Your task to perform on an android device: Search for pizza restaurants on Maps Image 0: 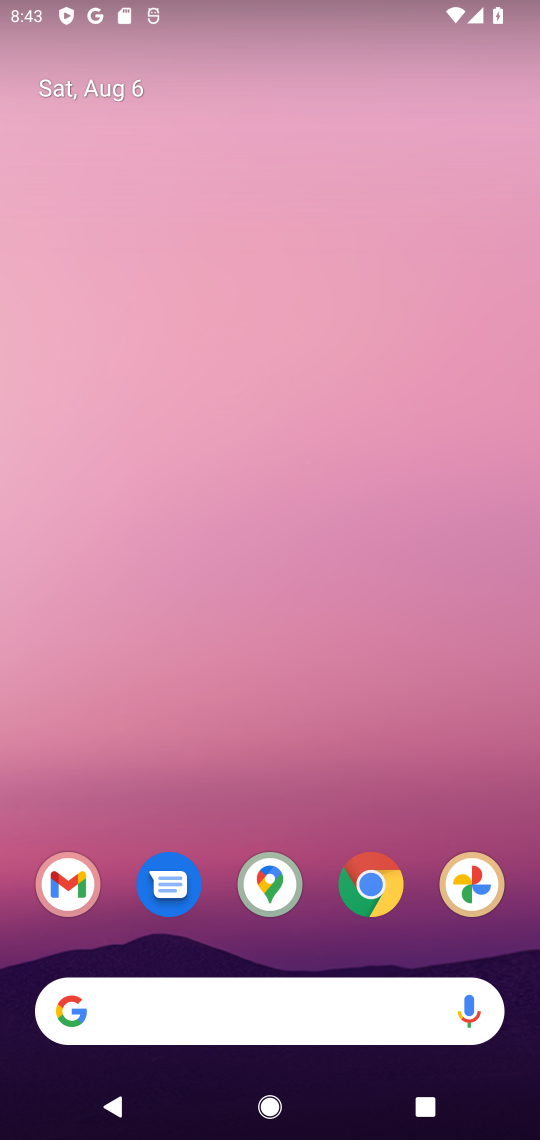
Step 0: click (269, 881)
Your task to perform on an android device: Search for pizza restaurants on Maps Image 1: 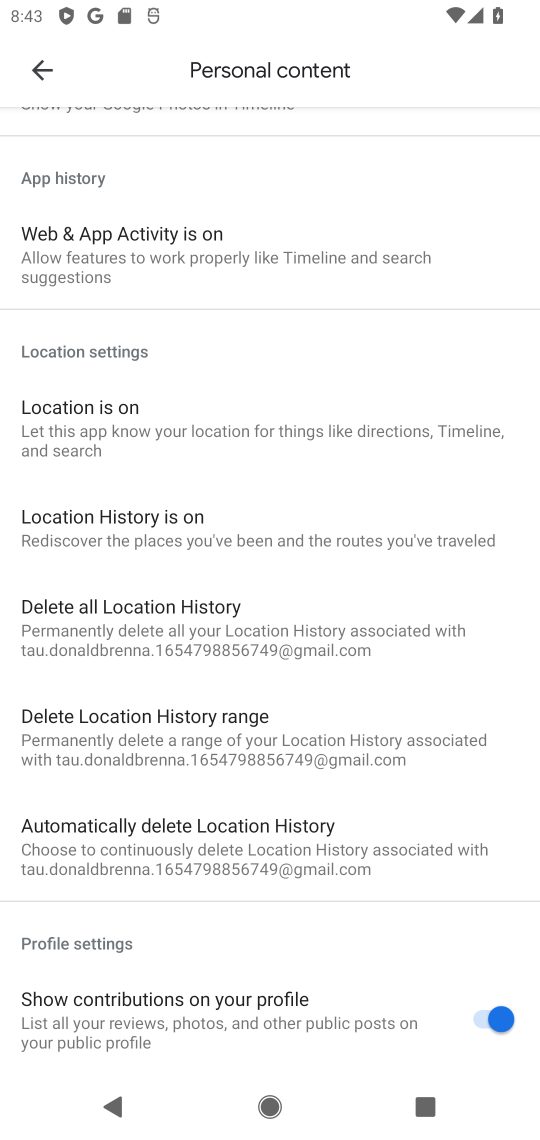
Step 1: press back button
Your task to perform on an android device: Search for pizza restaurants on Maps Image 2: 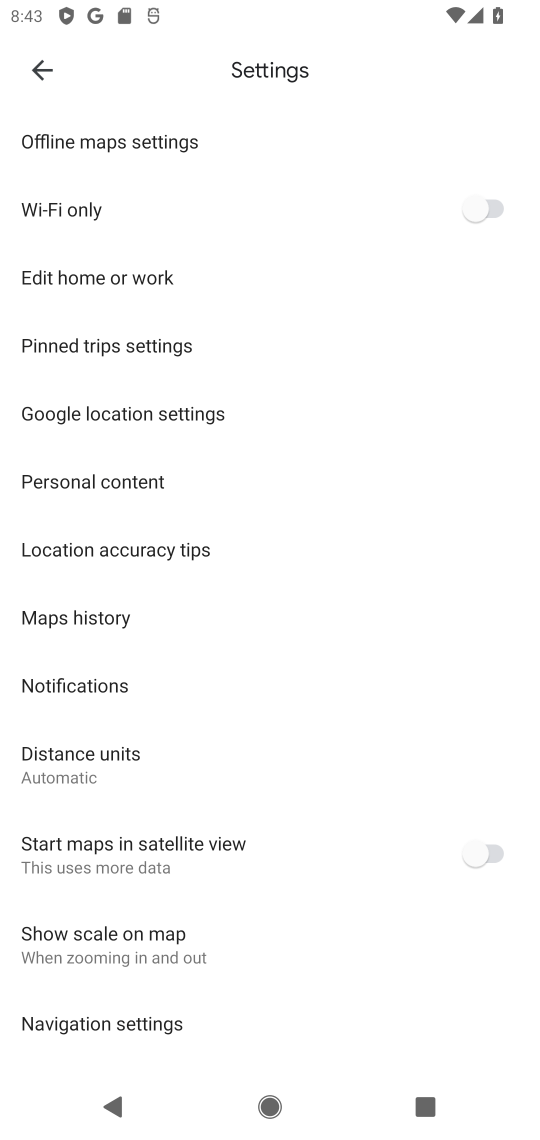
Step 2: press back button
Your task to perform on an android device: Search for pizza restaurants on Maps Image 3: 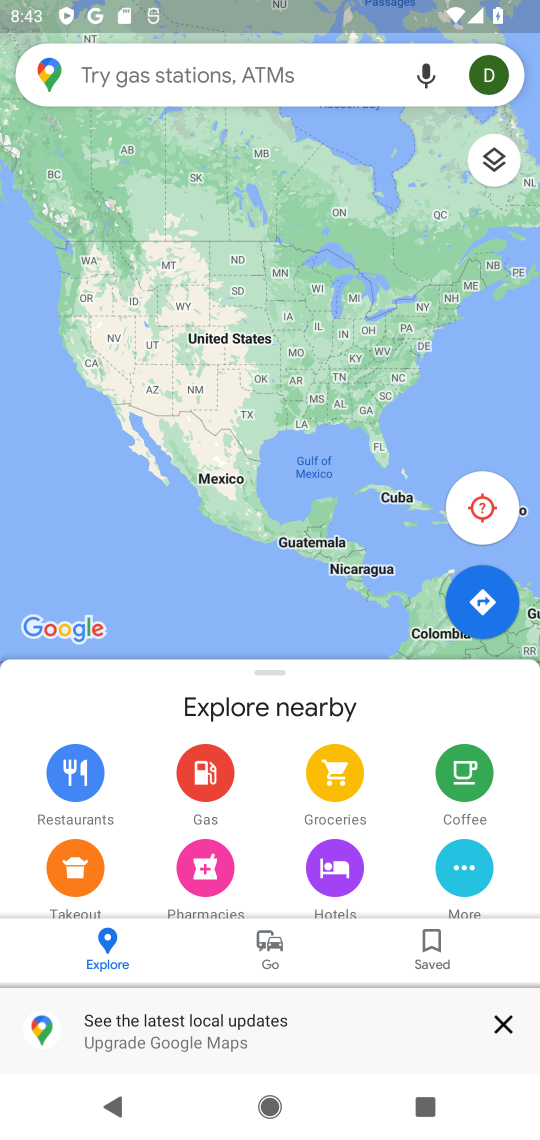
Step 3: click (198, 62)
Your task to perform on an android device: Search for pizza restaurants on Maps Image 4: 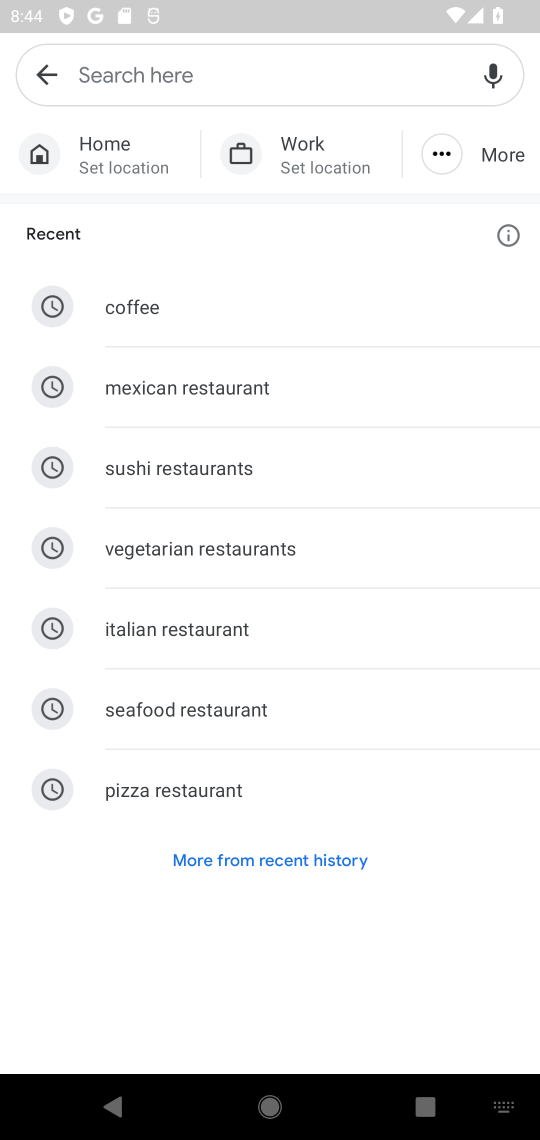
Step 4: type "pizza restaurants"
Your task to perform on an android device: Search for pizza restaurants on Maps Image 5: 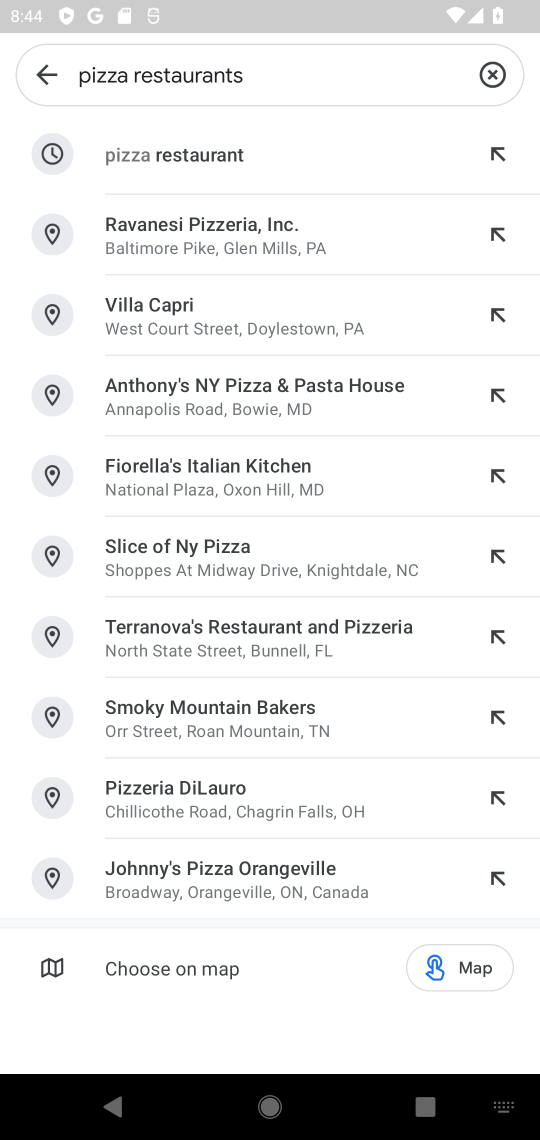
Step 5: click (175, 148)
Your task to perform on an android device: Search for pizza restaurants on Maps Image 6: 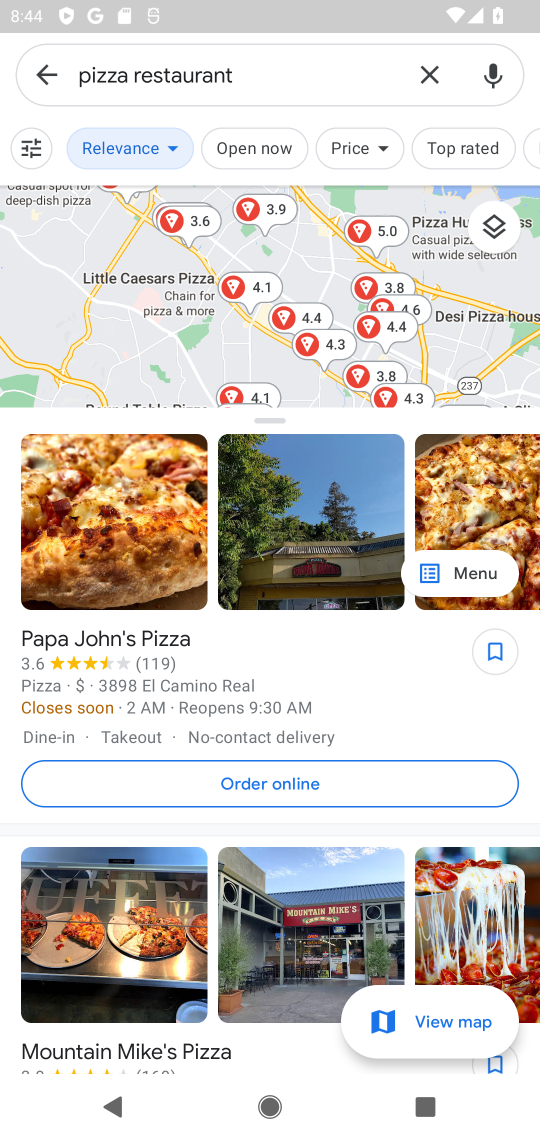
Step 6: task complete